Your task to perform on an android device: check google app version Image 0: 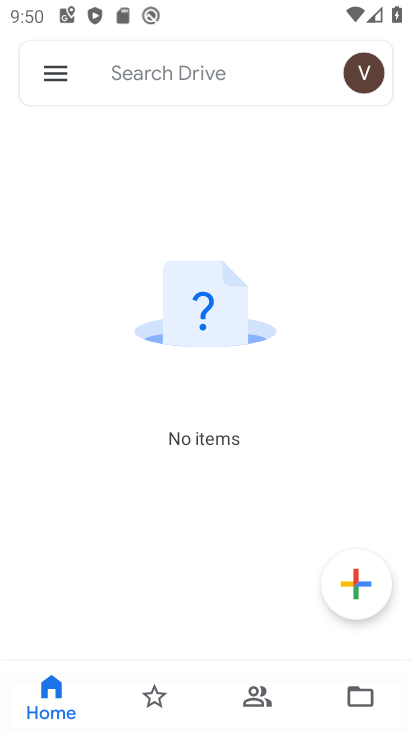
Step 0: press home button
Your task to perform on an android device: check google app version Image 1: 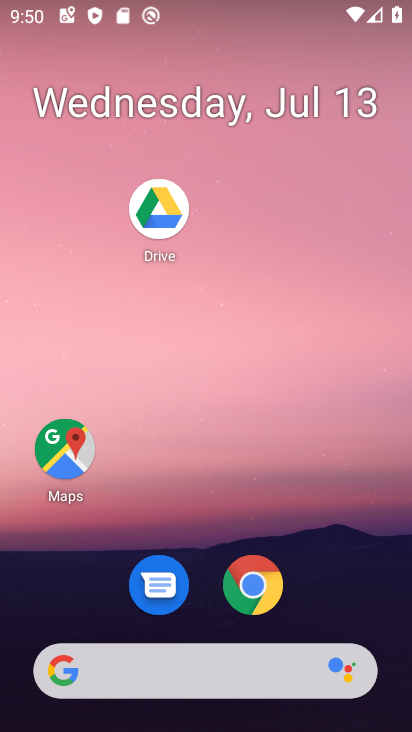
Step 1: drag from (210, 670) to (282, 85)
Your task to perform on an android device: check google app version Image 2: 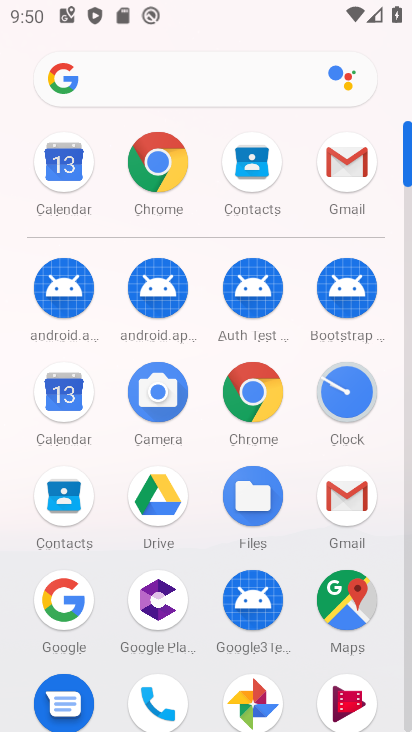
Step 2: click (75, 590)
Your task to perform on an android device: check google app version Image 3: 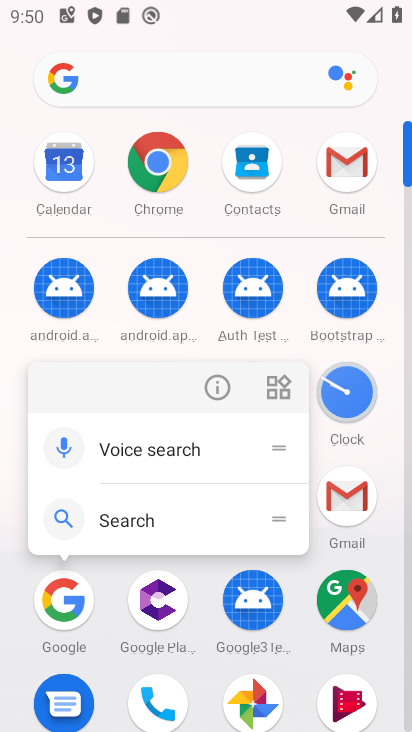
Step 3: click (212, 387)
Your task to perform on an android device: check google app version Image 4: 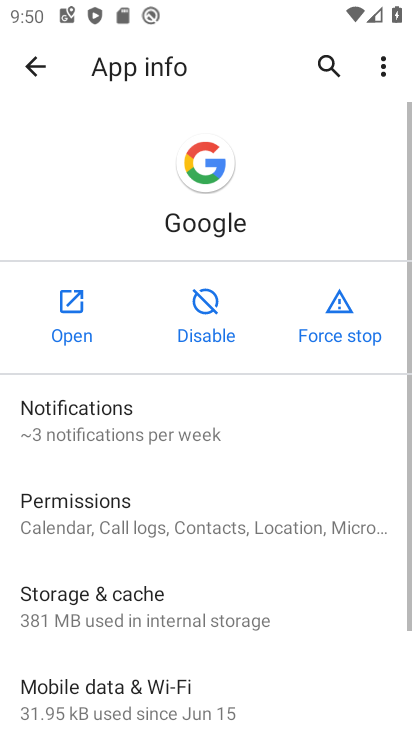
Step 4: drag from (234, 676) to (355, 60)
Your task to perform on an android device: check google app version Image 5: 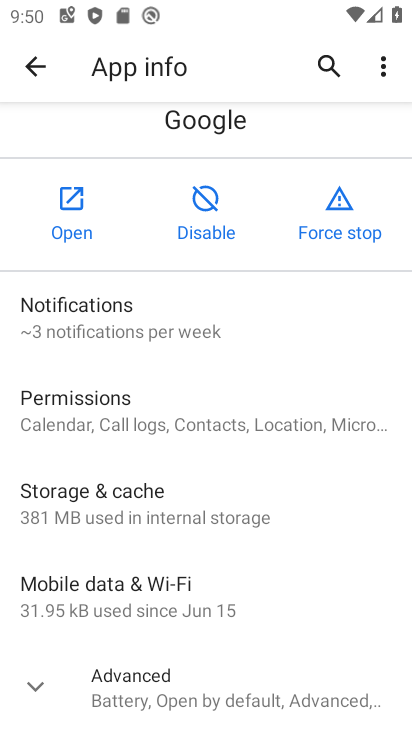
Step 5: click (125, 676)
Your task to perform on an android device: check google app version Image 6: 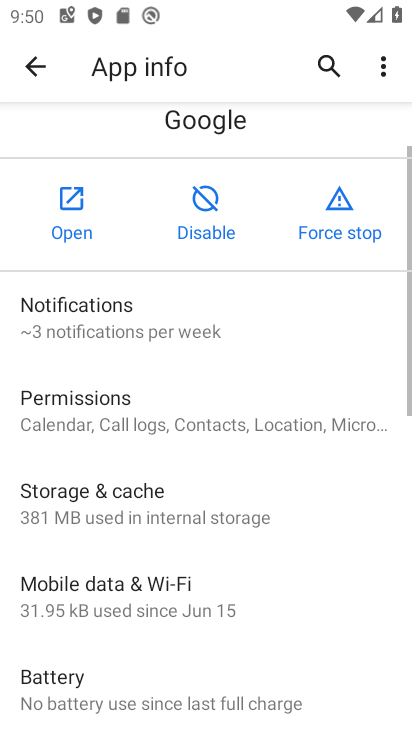
Step 6: task complete